Your task to perform on an android device: check google app version Image 0: 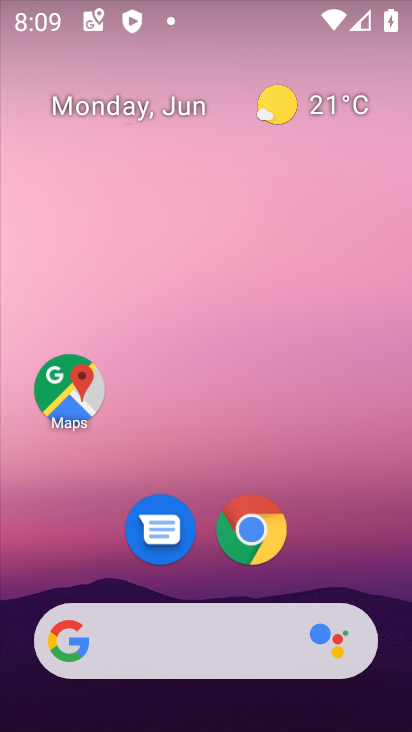
Step 0: press home button
Your task to perform on an android device: check google app version Image 1: 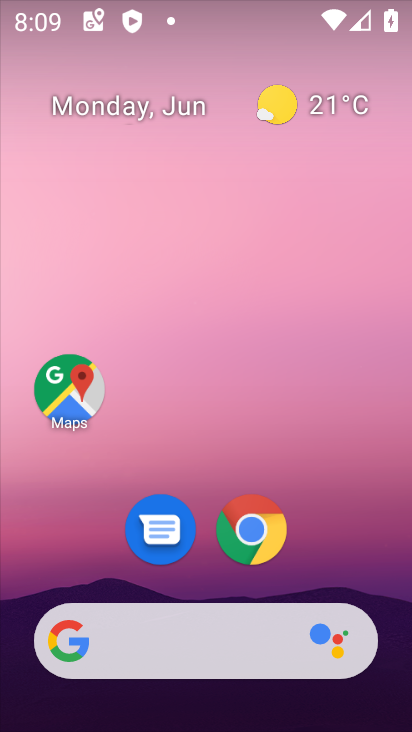
Step 1: drag from (2, 627) to (308, 146)
Your task to perform on an android device: check google app version Image 2: 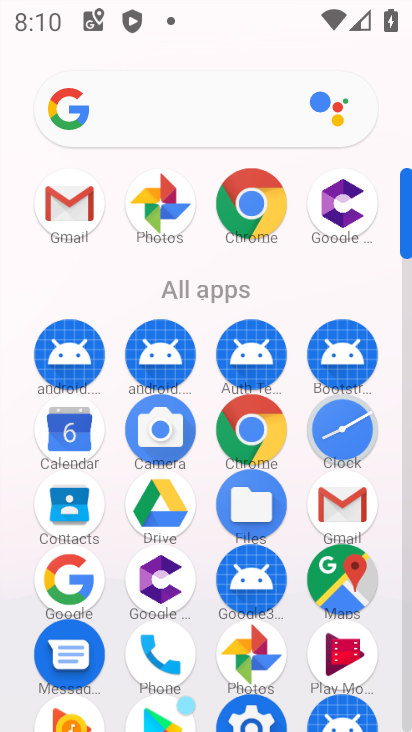
Step 2: click (255, 580)
Your task to perform on an android device: check google app version Image 3: 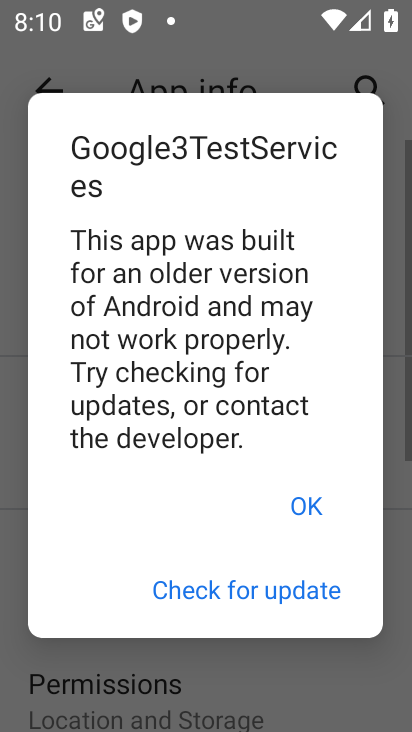
Step 3: click (309, 519)
Your task to perform on an android device: check google app version Image 4: 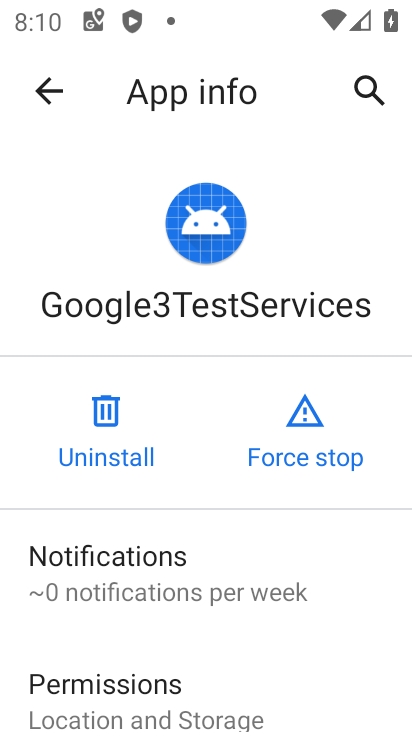
Step 4: drag from (23, 641) to (292, 253)
Your task to perform on an android device: check google app version Image 5: 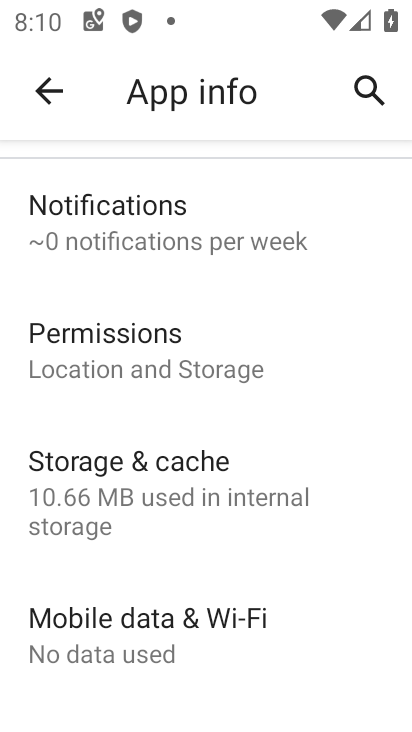
Step 5: drag from (48, 581) to (298, 139)
Your task to perform on an android device: check google app version Image 6: 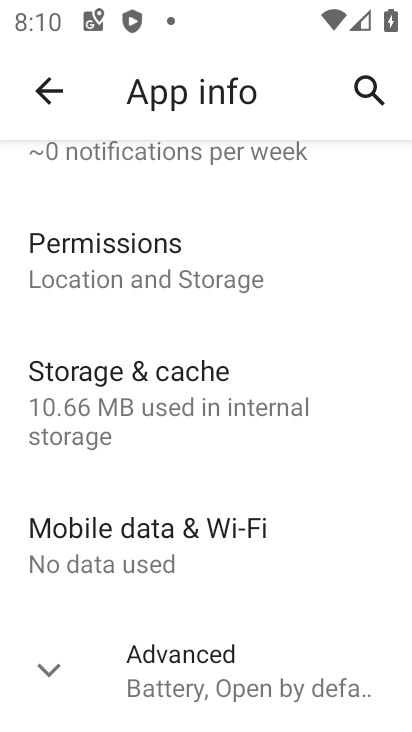
Step 6: click (104, 671)
Your task to perform on an android device: check google app version Image 7: 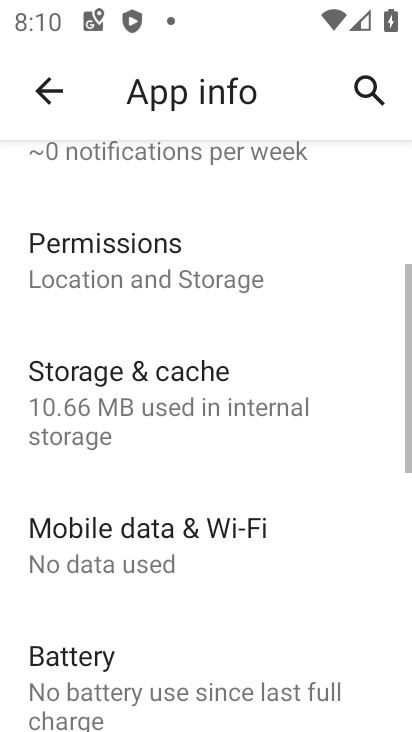
Step 7: drag from (30, 618) to (246, 220)
Your task to perform on an android device: check google app version Image 8: 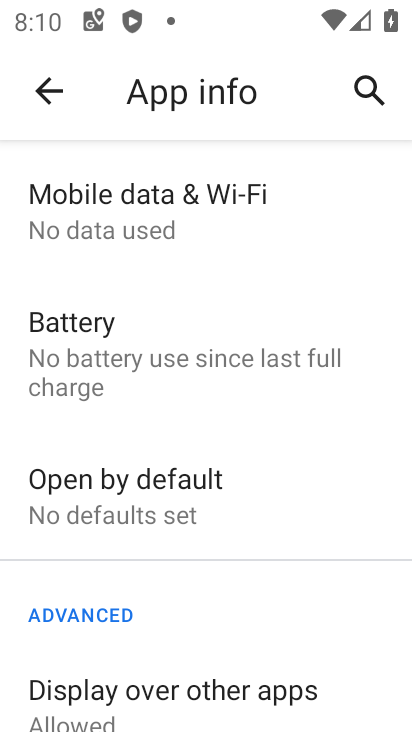
Step 8: drag from (0, 608) to (317, 177)
Your task to perform on an android device: check google app version Image 9: 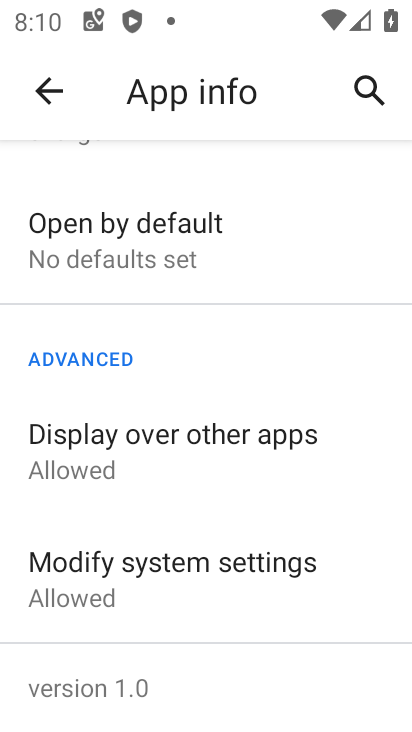
Step 9: click (57, 668)
Your task to perform on an android device: check google app version Image 10: 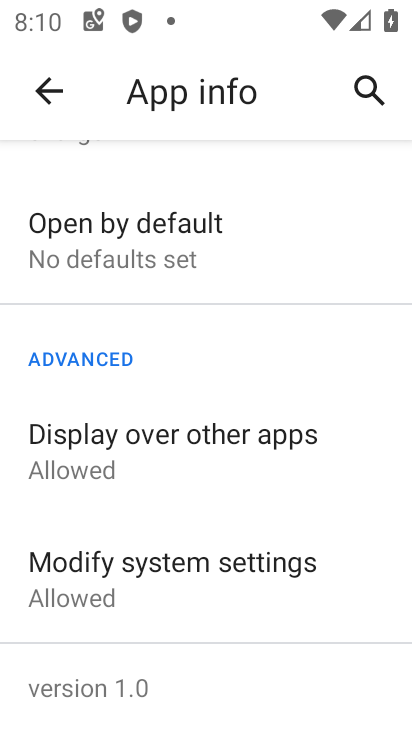
Step 10: click (58, 688)
Your task to perform on an android device: check google app version Image 11: 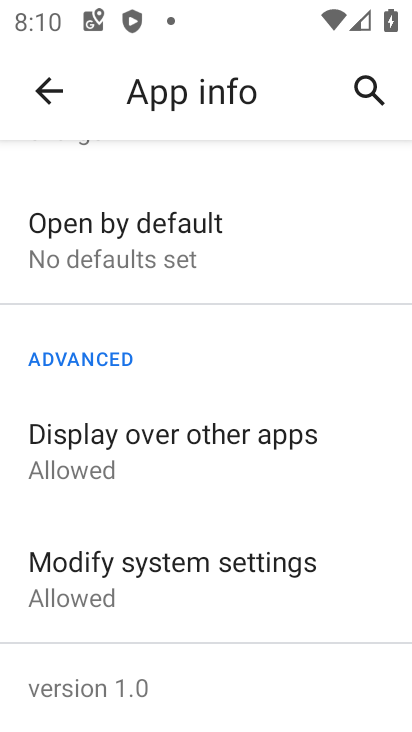
Step 11: task complete